Your task to perform on an android device: turn on improve location accuracy Image 0: 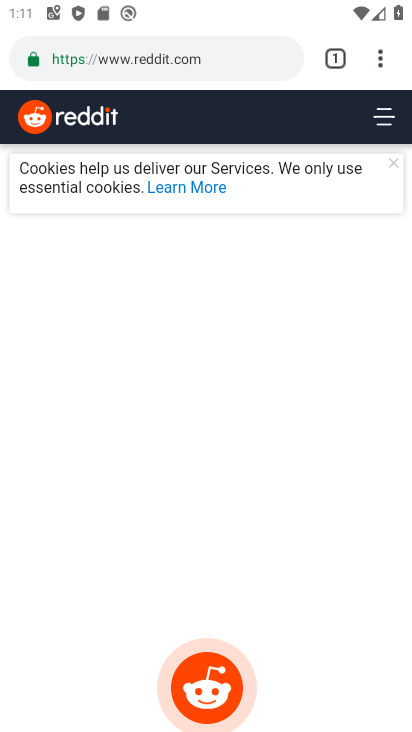
Step 0: press home button
Your task to perform on an android device: turn on improve location accuracy Image 1: 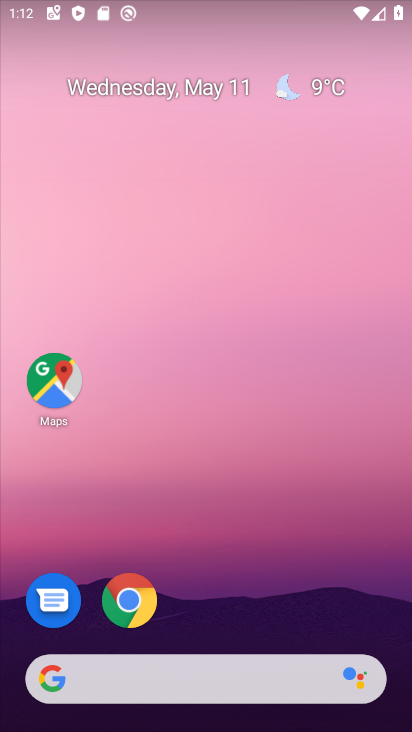
Step 1: drag from (214, 698) to (175, 124)
Your task to perform on an android device: turn on improve location accuracy Image 2: 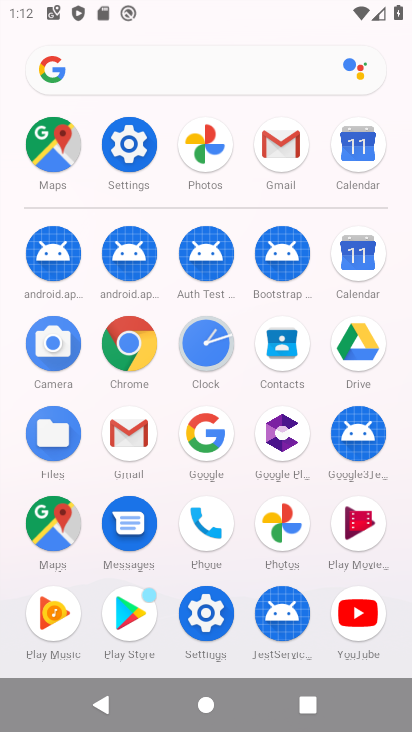
Step 2: click (120, 147)
Your task to perform on an android device: turn on improve location accuracy Image 3: 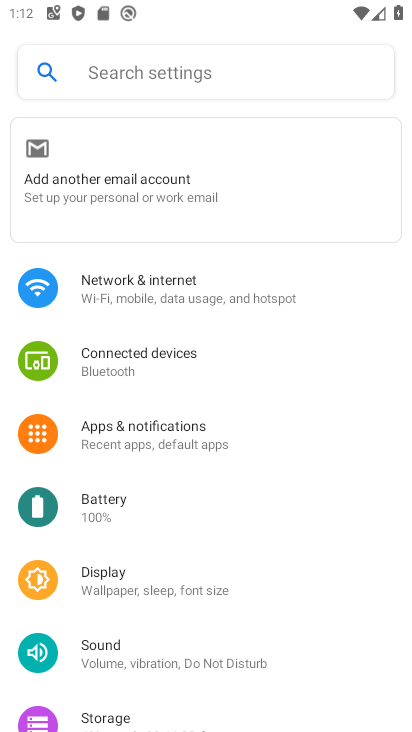
Step 3: drag from (228, 652) to (241, 32)
Your task to perform on an android device: turn on improve location accuracy Image 4: 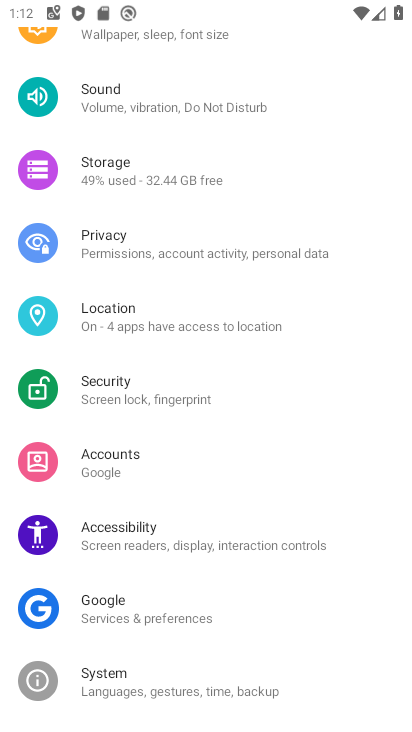
Step 4: click (214, 324)
Your task to perform on an android device: turn on improve location accuracy Image 5: 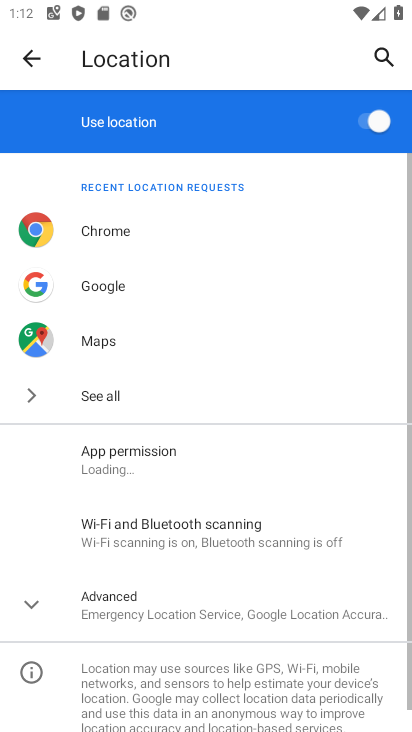
Step 5: click (248, 606)
Your task to perform on an android device: turn on improve location accuracy Image 6: 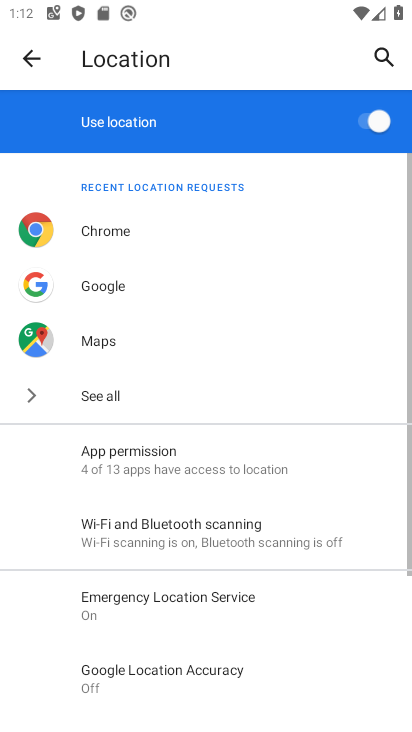
Step 6: drag from (300, 642) to (326, 202)
Your task to perform on an android device: turn on improve location accuracy Image 7: 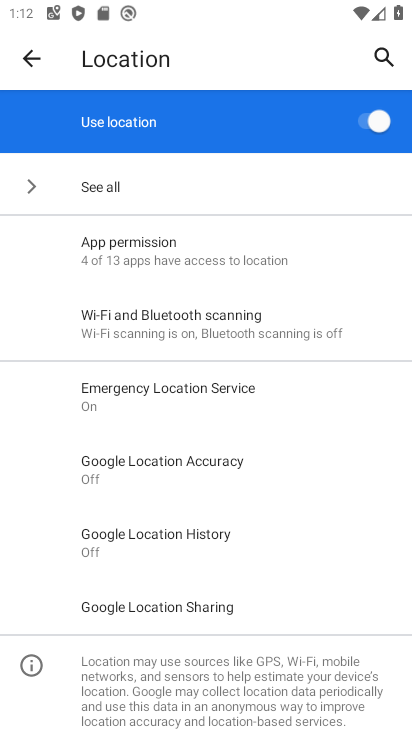
Step 7: click (218, 454)
Your task to perform on an android device: turn on improve location accuracy Image 8: 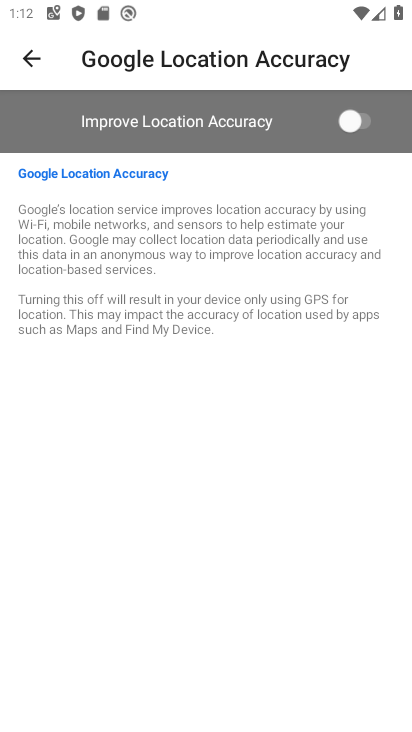
Step 8: click (352, 120)
Your task to perform on an android device: turn on improve location accuracy Image 9: 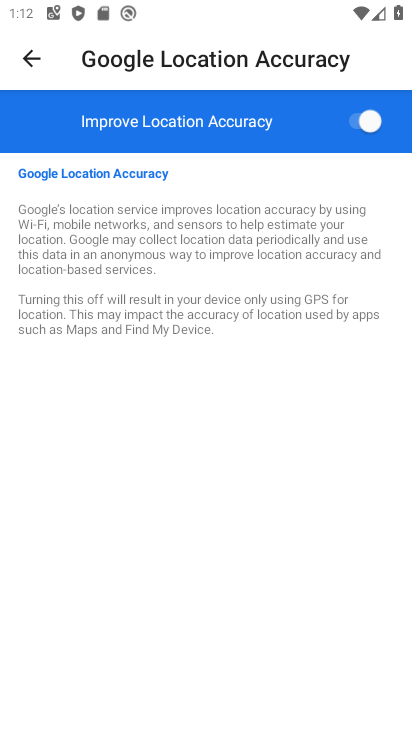
Step 9: task complete